Your task to perform on an android device: Do I have any events today? Image 0: 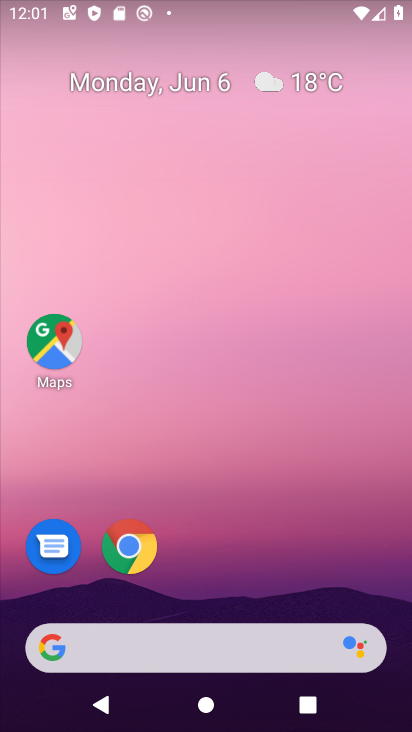
Step 0: drag from (248, 589) to (311, 127)
Your task to perform on an android device: Do I have any events today? Image 1: 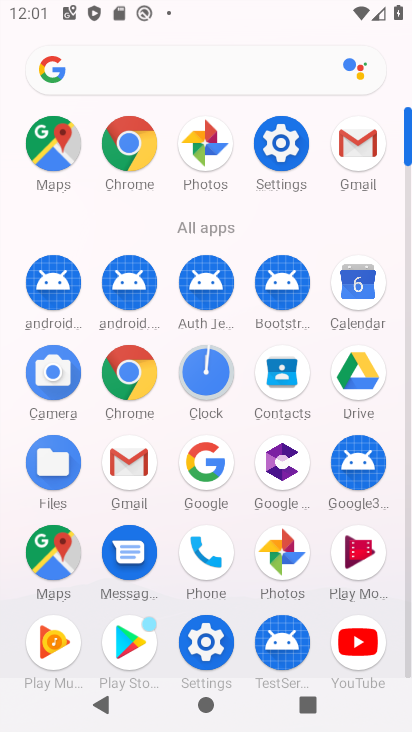
Step 1: click (350, 274)
Your task to perform on an android device: Do I have any events today? Image 2: 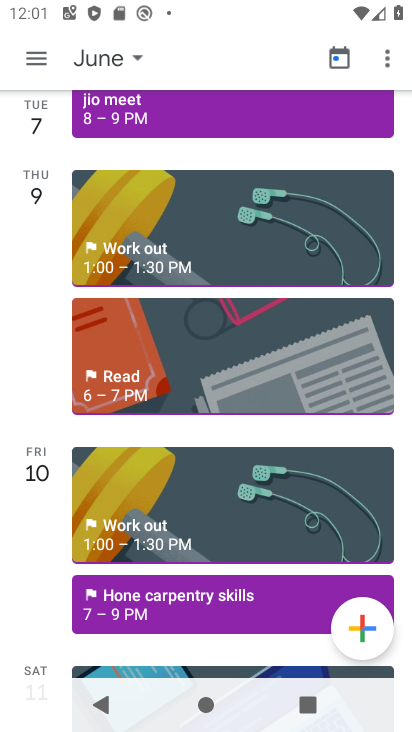
Step 2: click (30, 61)
Your task to perform on an android device: Do I have any events today? Image 3: 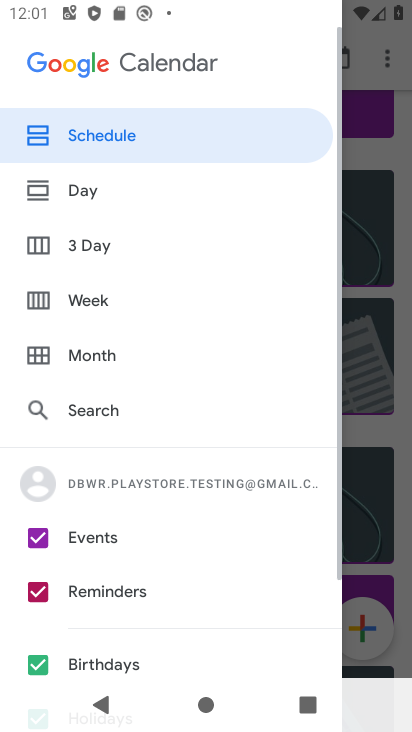
Step 3: click (101, 134)
Your task to perform on an android device: Do I have any events today? Image 4: 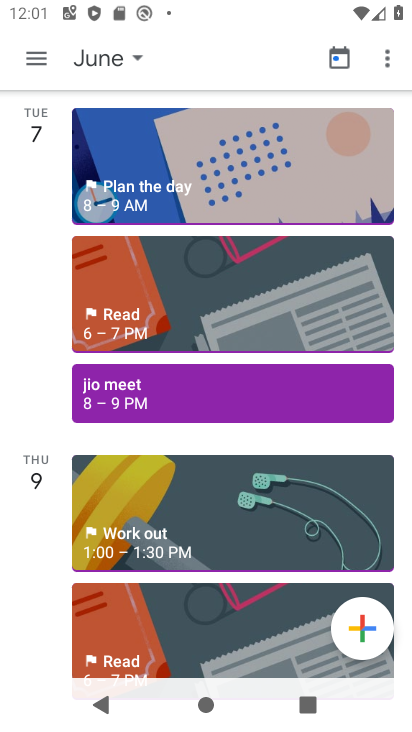
Step 4: task complete